Your task to perform on an android device: delete browsing data in the chrome app Image 0: 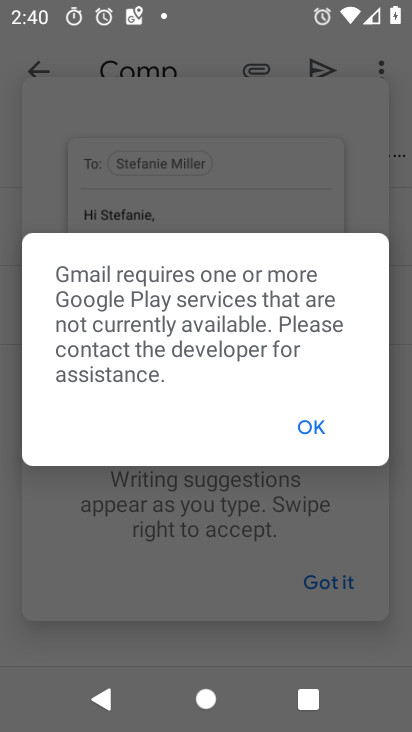
Step 0: press home button
Your task to perform on an android device: delete browsing data in the chrome app Image 1: 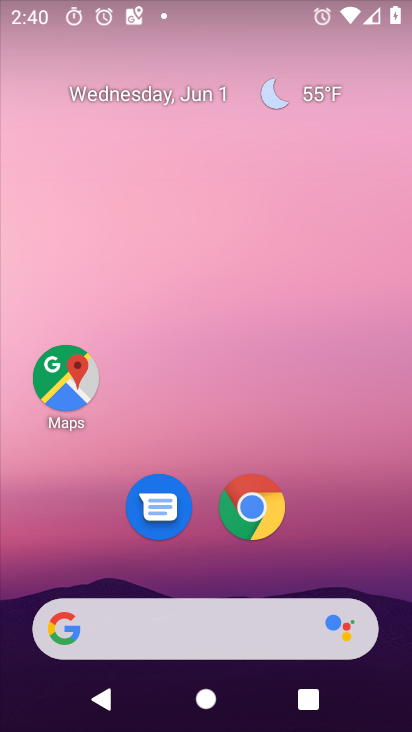
Step 1: click (271, 520)
Your task to perform on an android device: delete browsing data in the chrome app Image 2: 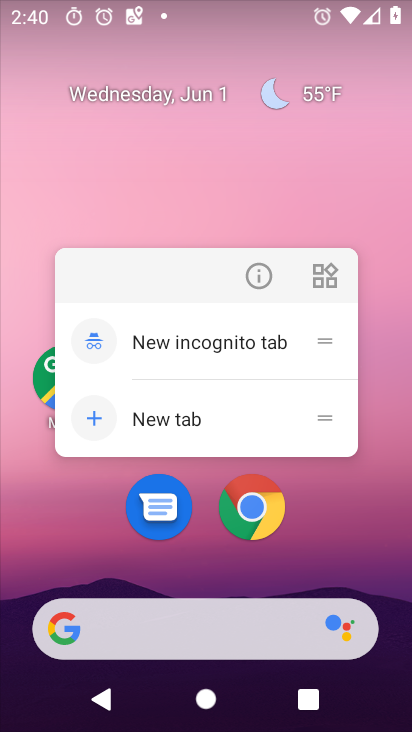
Step 2: click (271, 520)
Your task to perform on an android device: delete browsing data in the chrome app Image 3: 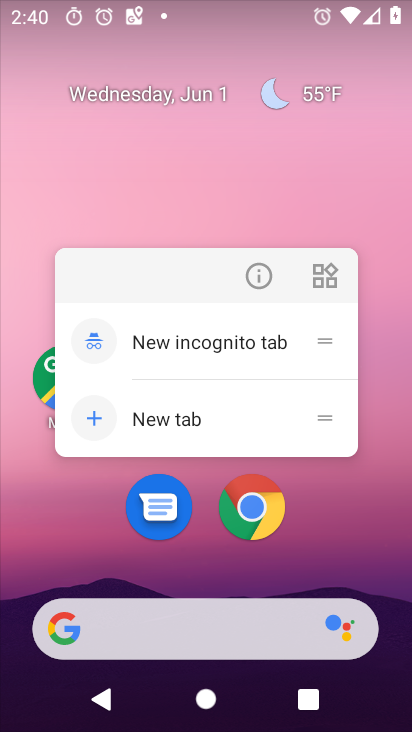
Step 3: click (260, 515)
Your task to perform on an android device: delete browsing data in the chrome app Image 4: 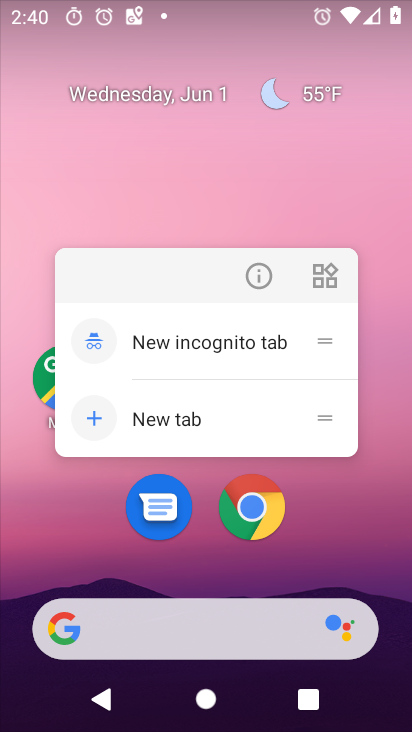
Step 4: click (256, 497)
Your task to perform on an android device: delete browsing data in the chrome app Image 5: 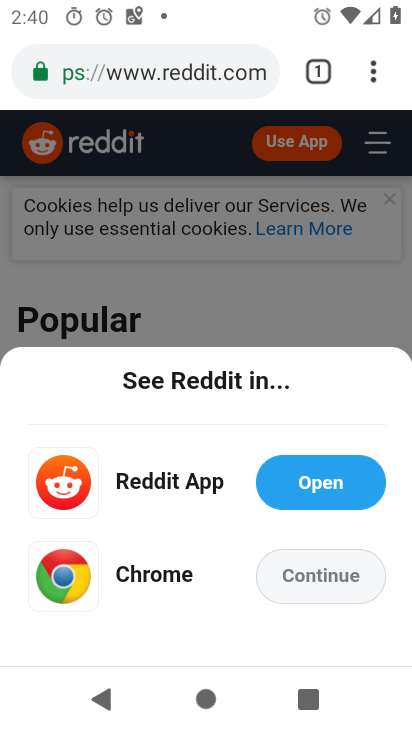
Step 5: click (372, 75)
Your task to perform on an android device: delete browsing data in the chrome app Image 6: 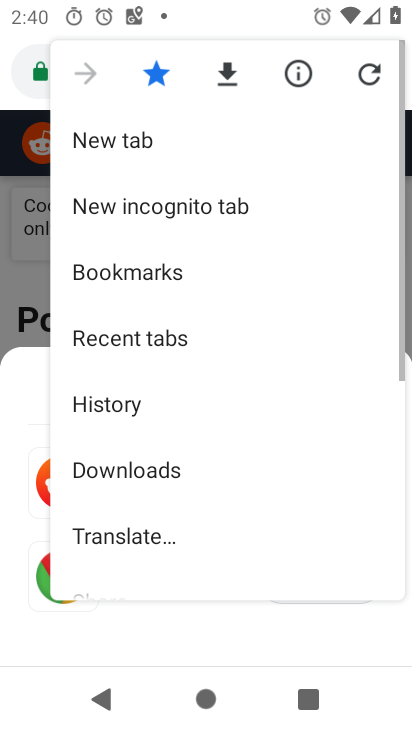
Step 6: drag from (162, 498) to (208, 113)
Your task to perform on an android device: delete browsing data in the chrome app Image 7: 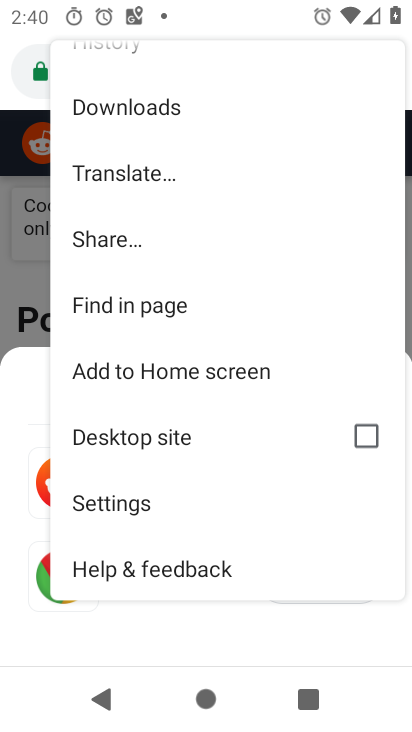
Step 7: click (143, 504)
Your task to perform on an android device: delete browsing data in the chrome app Image 8: 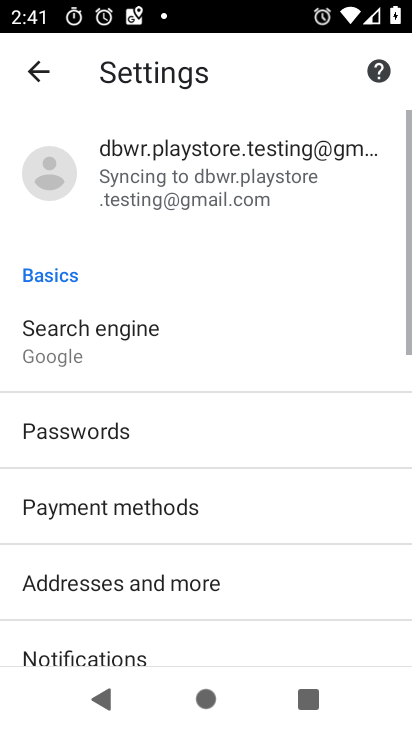
Step 8: drag from (253, 573) to (263, 140)
Your task to perform on an android device: delete browsing data in the chrome app Image 9: 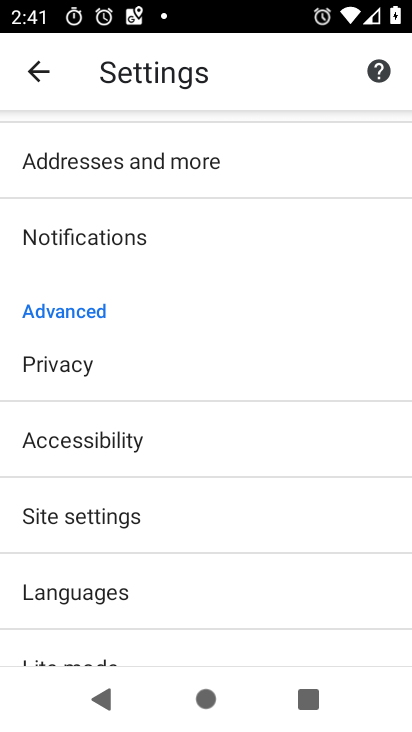
Step 9: click (84, 370)
Your task to perform on an android device: delete browsing data in the chrome app Image 10: 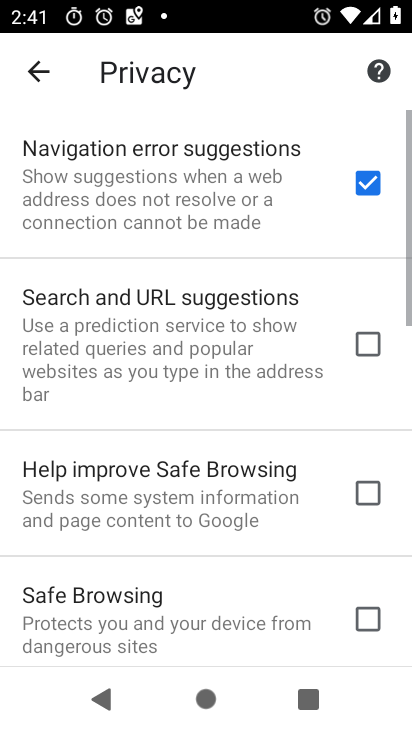
Step 10: drag from (204, 543) to (210, 85)
Your task to perform on an android device: delete browsing data in the chrome app Image 11: 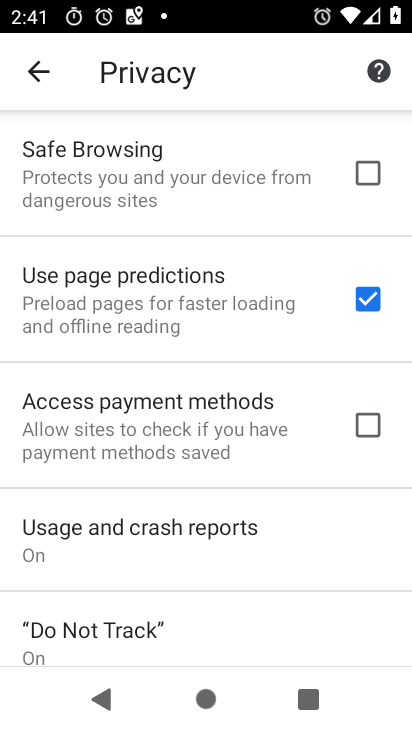
Step 11: drag from (128, 595) to (139, 251)
Your task to perform on an android device: delete browsing data in the chrome app Image 12: 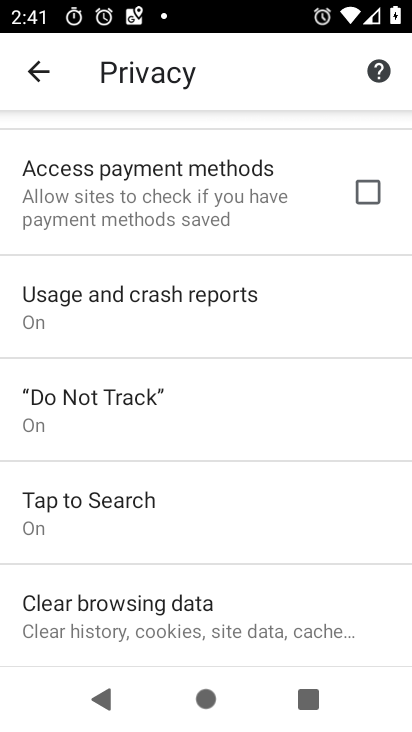
Step 12: click (155, 612)
Your task to perform on an android device: delete browsing data in the chrome app Image 13: 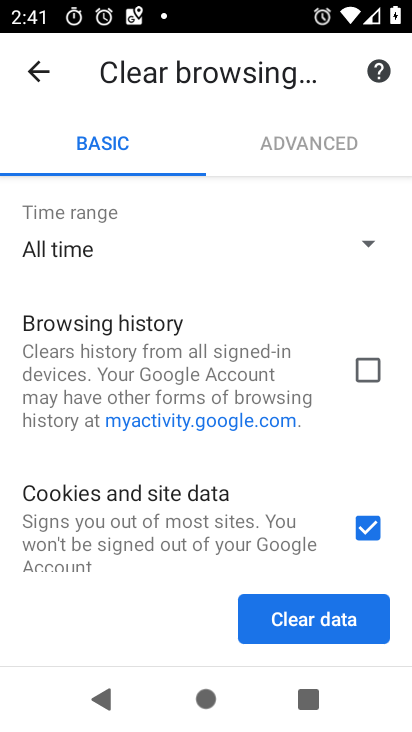
Step 13: click (349, 365)
Your task to perform on an android device: delete browsing data in the chrome app Image 14: 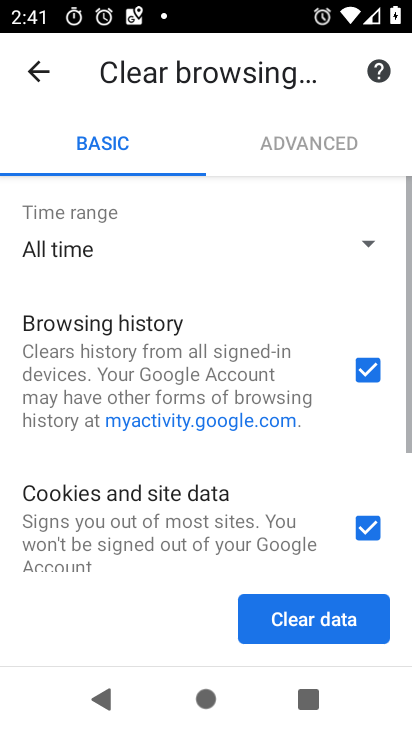
Step 14: click (360, 532)
Your task to perform on an android device: delete browsing data in the chrome app Image 15: 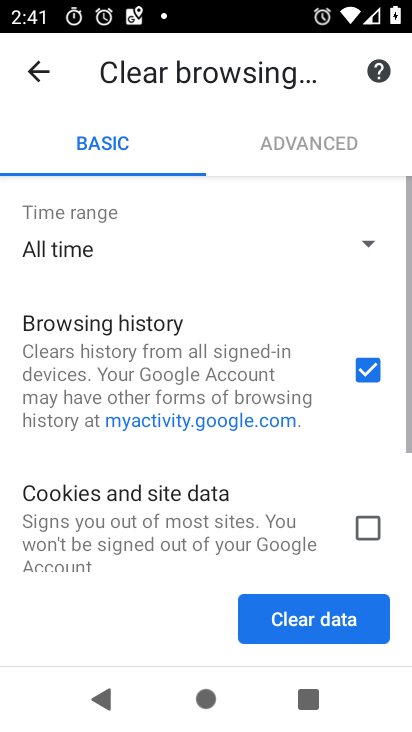
Step 15: drag from (183, 519) to (174, 199)
Your task to perform on an android device: delete browsing data in the chrome app Image 16: 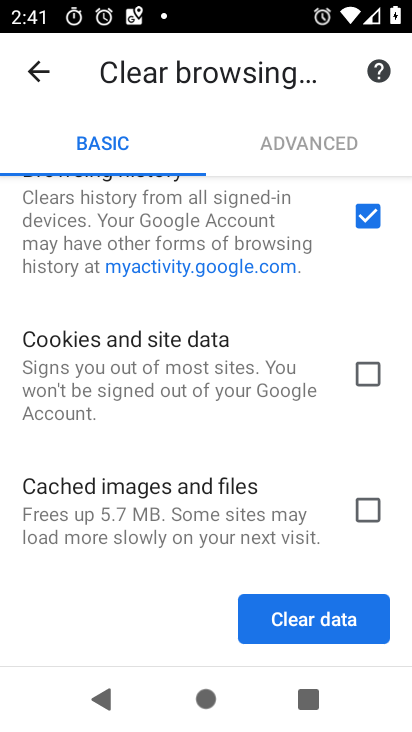
Step 16: click (310, 622)
Your task to perform on an android device: delete browsing data in the chrome app Image 17: 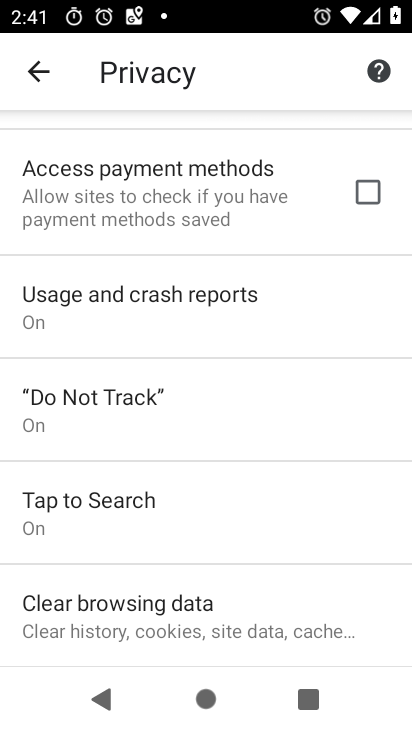
Step 17: task complete